Your task to perform on an android device: toggle notifications settings in the gmail app Image 0: 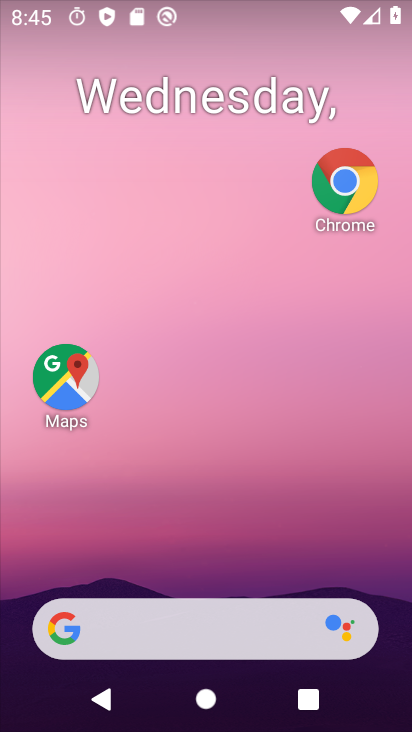
Step 0: drag from (215, 678) to (288, 293)
Your task to perform on an android device: toggle notifications settings in the gmail app Image 1: 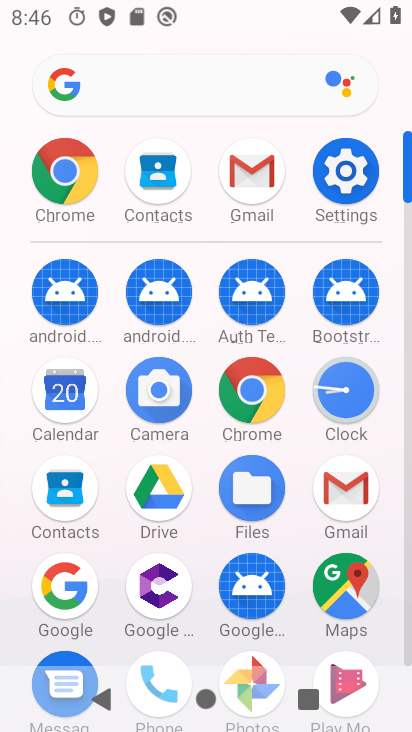
Step 1: click (331, 494)
Your task to perform on an android device: toggle notifications settings in the gmail app Image 2: 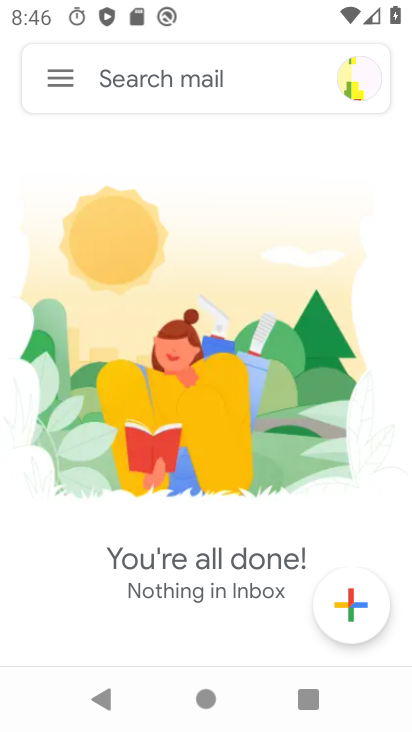
Step 2: click (69, 79)
Your task to perform on an android device: toggle notifications settings in the gmail app Image 3: 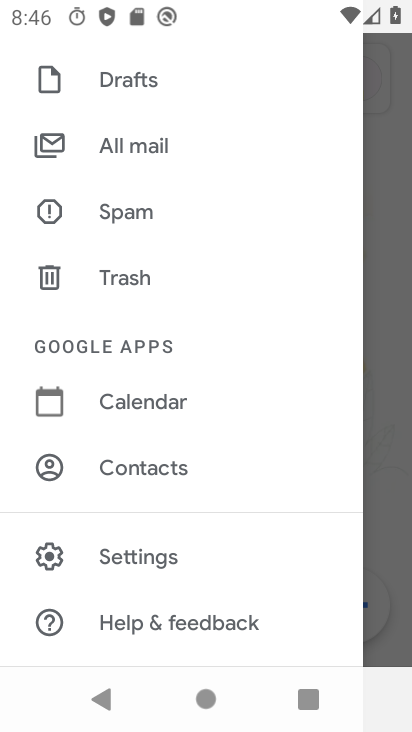
Step 3: click (114, 548)
Your task to perform on an android device: toggle notifications settings in the gmail app Image 4: 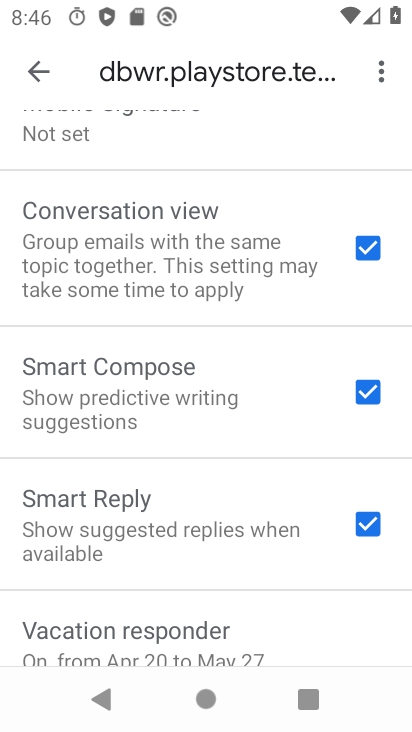
Step 4: drag from (157, 248) to (67, 607)
Your task to perform on an android device: toggle notifications settings in the gmail app Image 5: 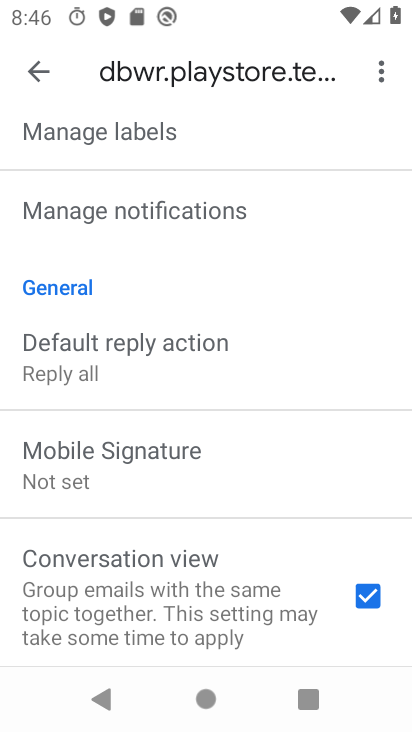
Step 5: drag from (140, 248) to (150, 373)
Your task to perform on an android device: toggle notifications settings in the gmail app Image 6: 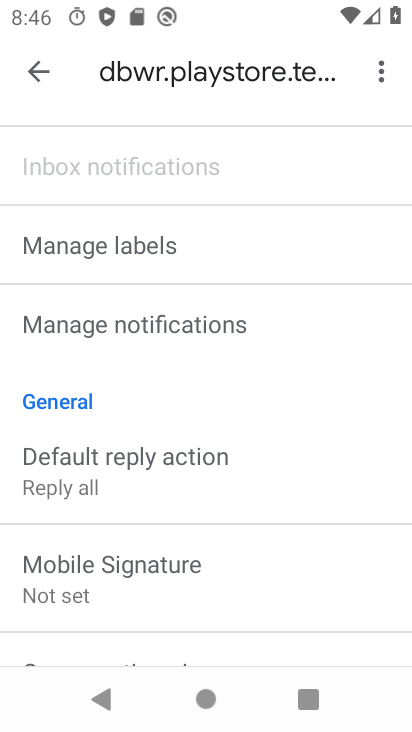
Step 6: drag from (168, 165) to (153, 415)
Your task to perform on an android device: toggle notifications settings in the gmail app Image 7: 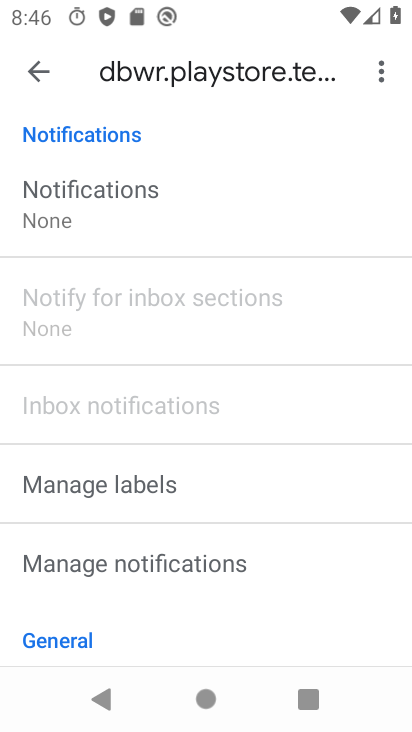
Step 7: drag from (141, 252) to (100, 439)
Your task to perform on an android device: toggle notifications settings in the gmail app Image 8: 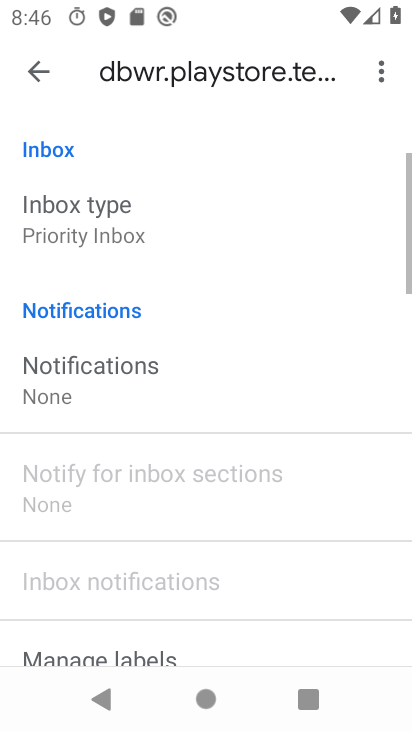
Step 8: click (65, 391)
Your task to perform on an android device: toggle notifications settings in the gmail app Image 9: 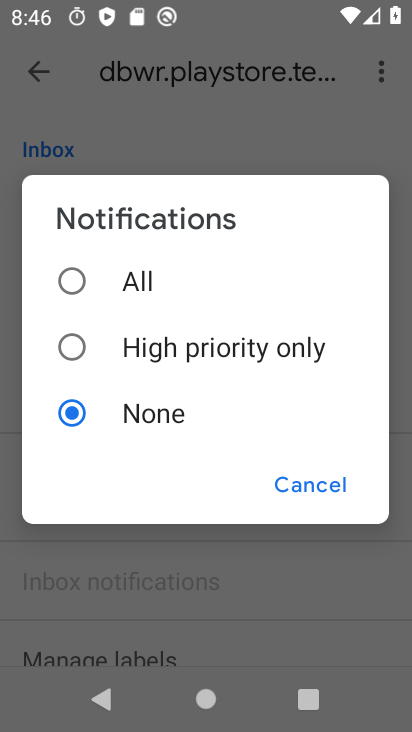
Step 9: task complete